Your task to perform on an android device: Go to wifi settings Image 0: 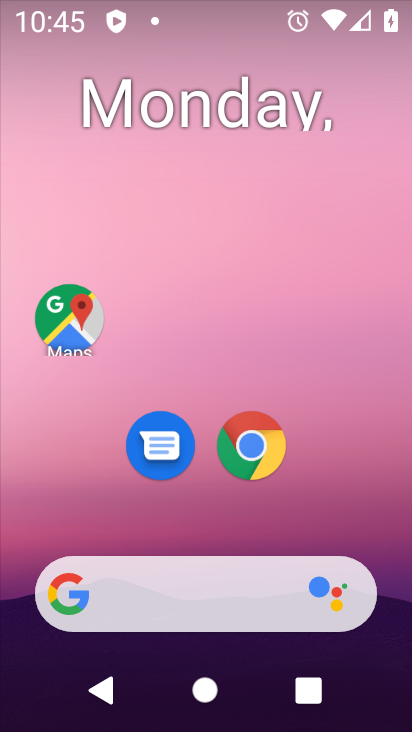
Step 0: drag from (354, 496) to (98, 128)
Your task to perform on an android device: Go to wifi settings Image 1: 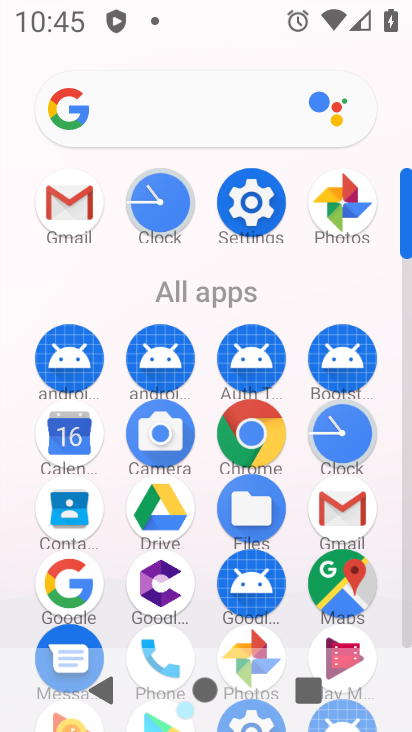
Step 1: click (249, 224)
Your task to perform on an android device: Go to wifi settings Image 2: 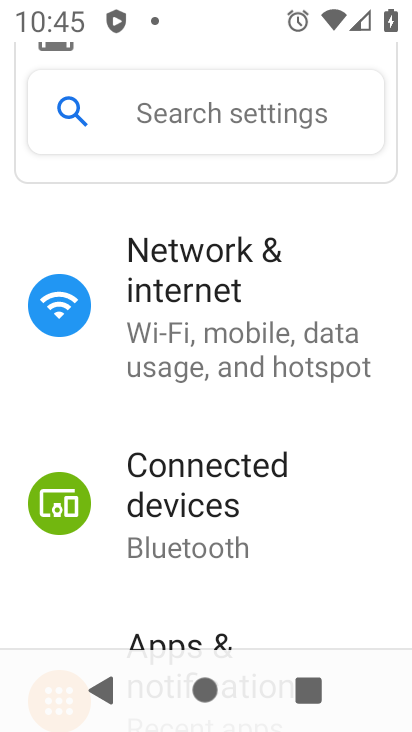
Step 2: click (206, 310)
Your task to perform on an android device: Go to wifi settings Image 3: 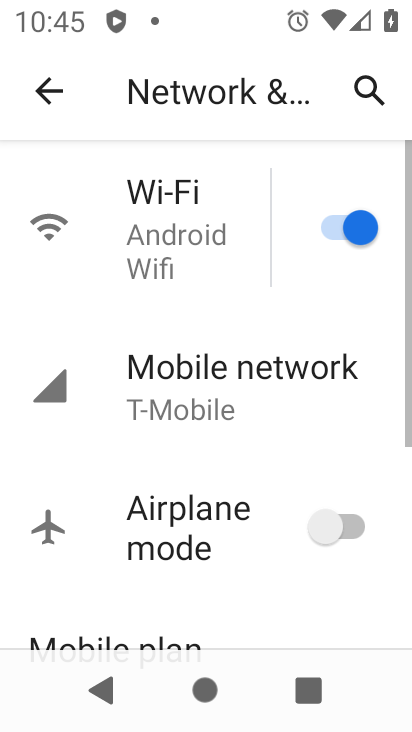
Step 3: click (138, 259)
Your task to perform on an android device: Go to wifi settings Image 4: 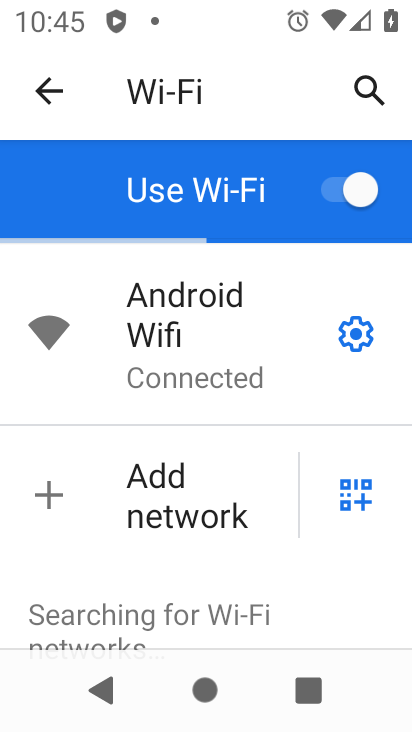
Step 4: task complete